Your task to perform on an android device: delete the emails in spam in the gmail app Image 0: 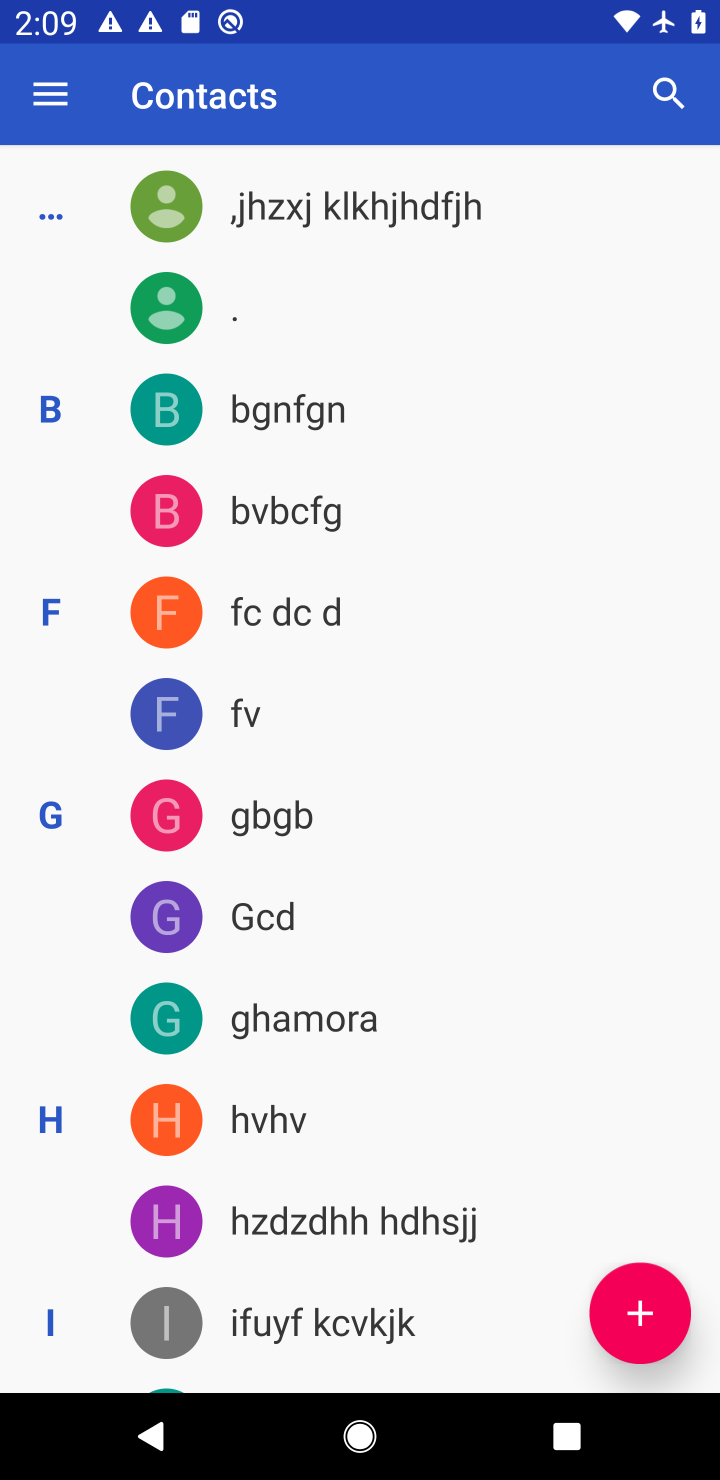
Step 0: press home button
Your task to perform on an android device: delete the emails in spam in the gmail app Image 1: 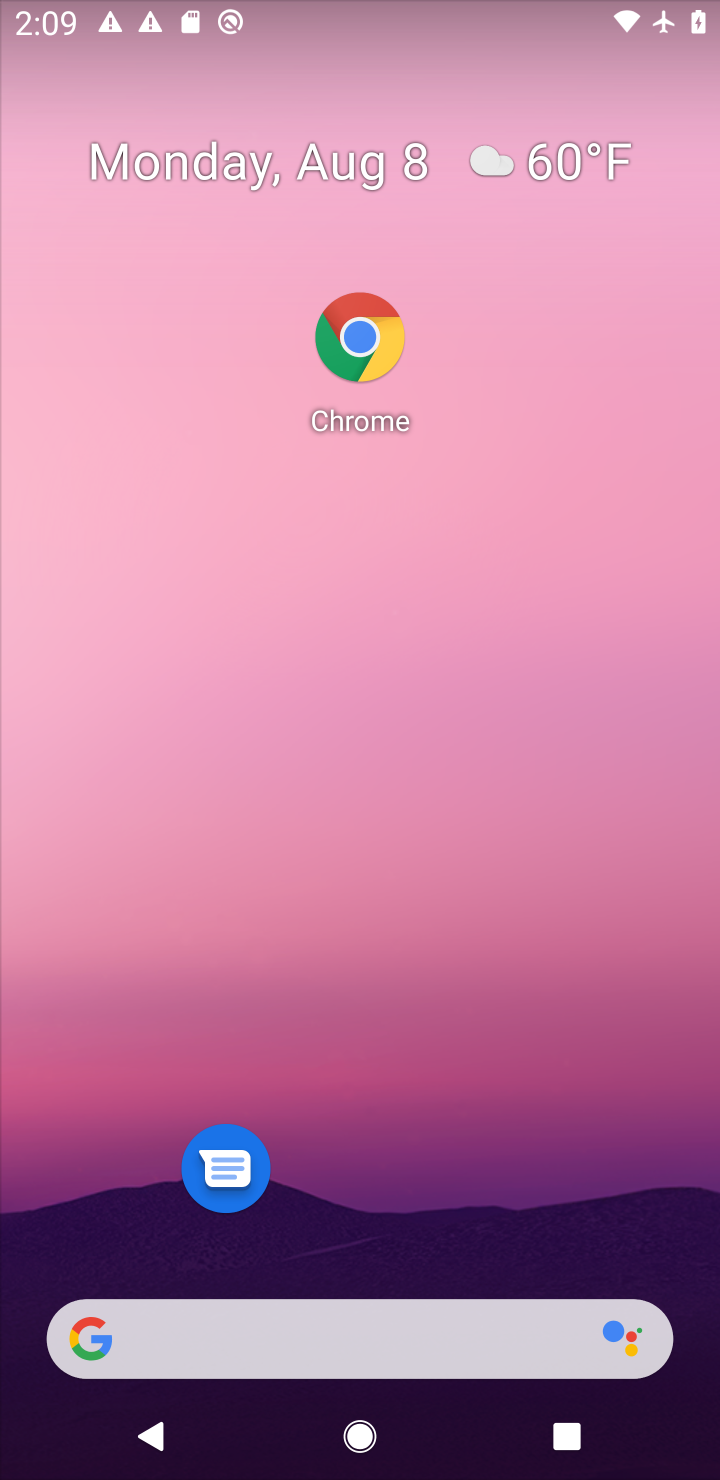
Step 1: drag from (509, 1257) to (483, 151)
Your task to perform on an android device: delete the emails in spam in the gmail app Image 2: 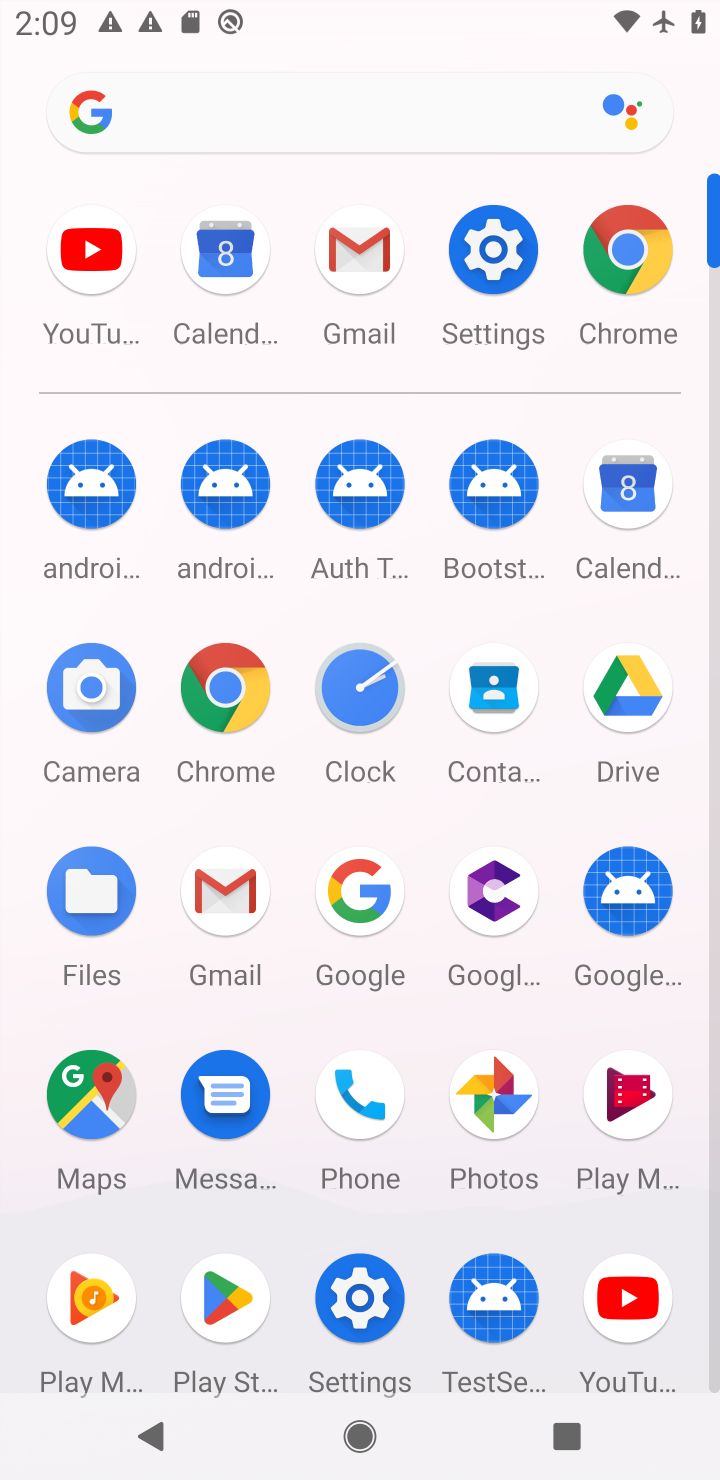
Step 2: click (261, 910)
Your task to perform on an android device: delete the emails in spam in the gmail app Image 3: 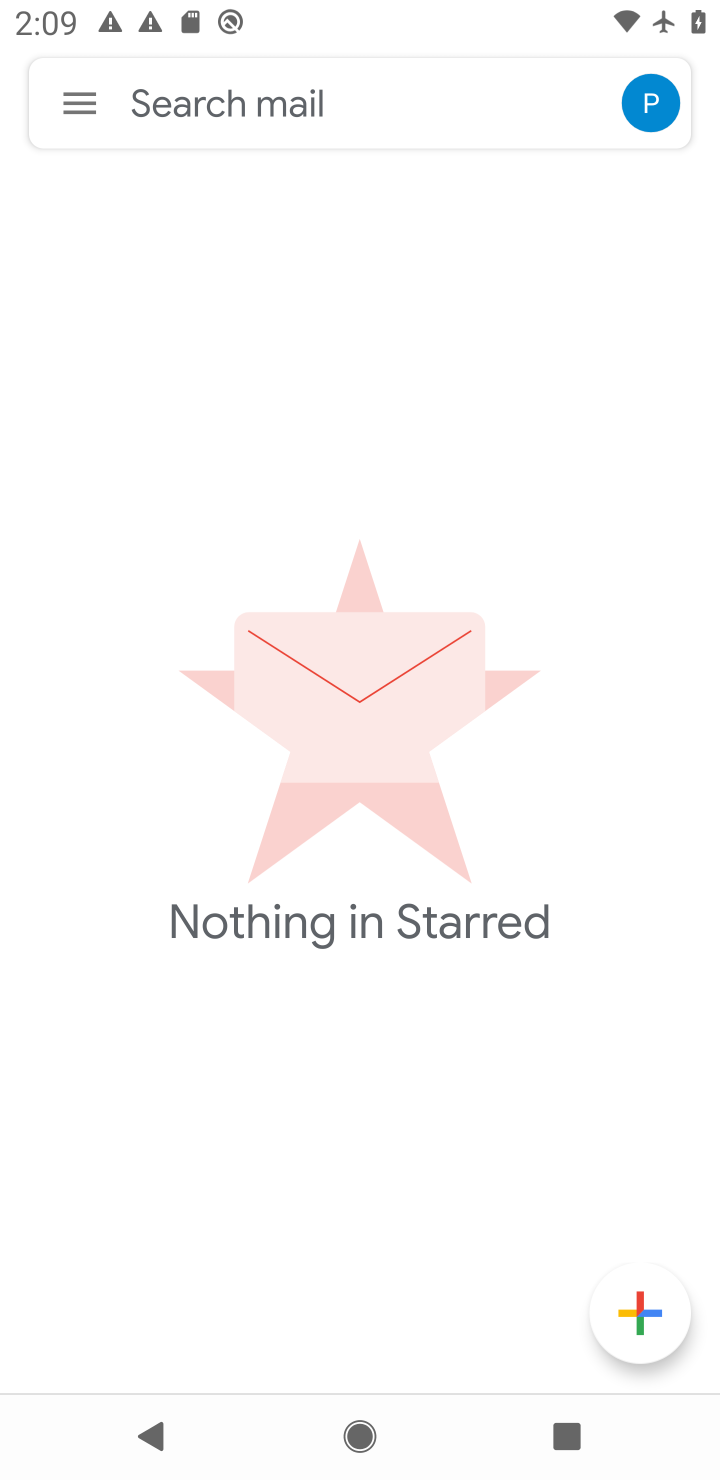
Step 3: task complete